Your task to perform on an android device: Go to notification settings Image 0: 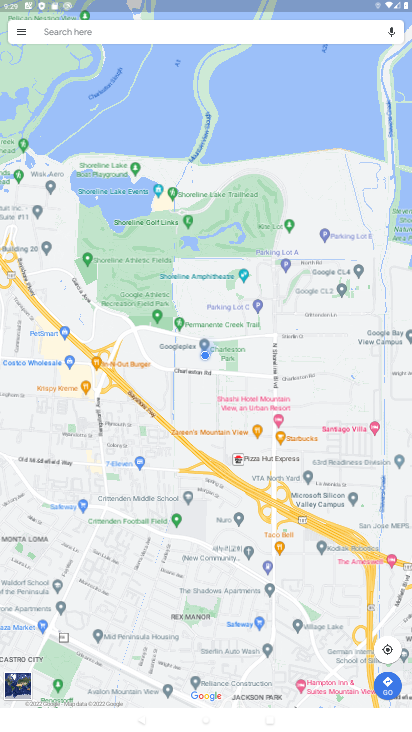
Step 0: drag from (179, 664) to (242, 609)
Your task to perform on an android device: Go to notification settings Image 1: 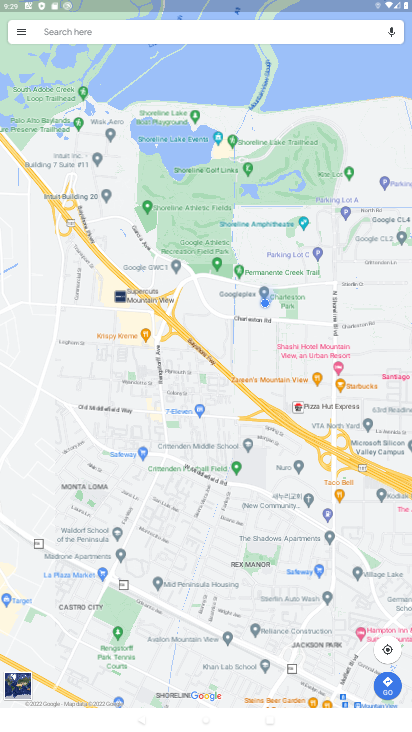
Step 1: press home button
Your task to perform on an android device: Go to notification settings Image 2: 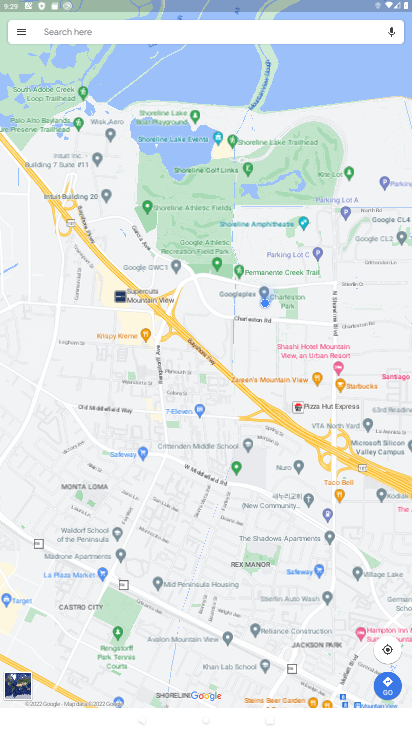
Step 2: drag from (242, 609) to (377, 525)
Your task to perform on an android device: Go to notification settings Image 3: 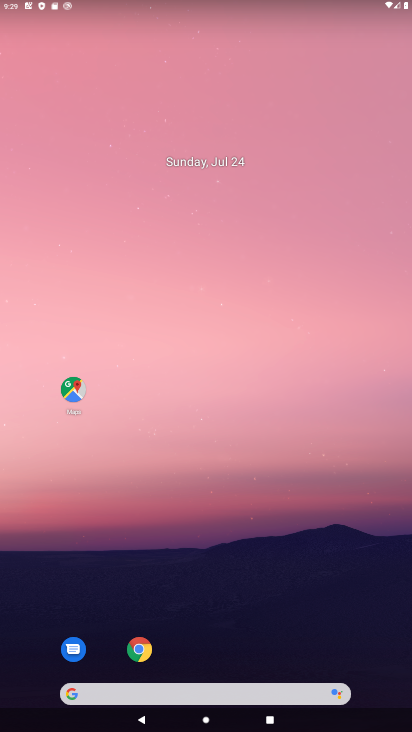
Step 3: drag from (192, 657) to (236, 188)
Your task to perform on an android device: Go to notification settings Image 4: 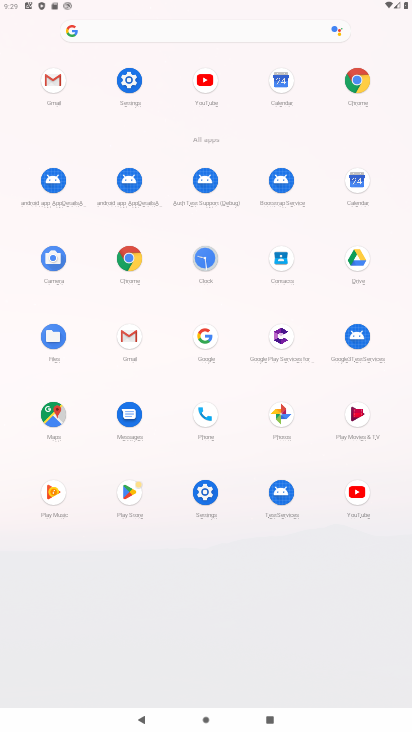
Step 4: click (209, 493)
Your task to perform on an android device: Go to notification settings Image 5: 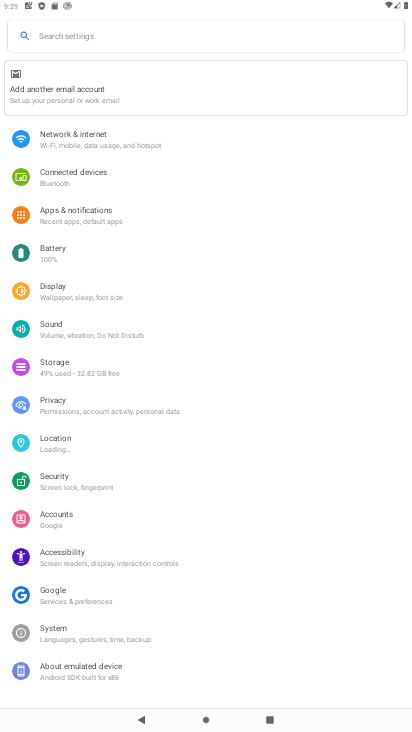
Step 5: click (132, 139)
Your task to perform on an android device: Go to notification settings Image 6: 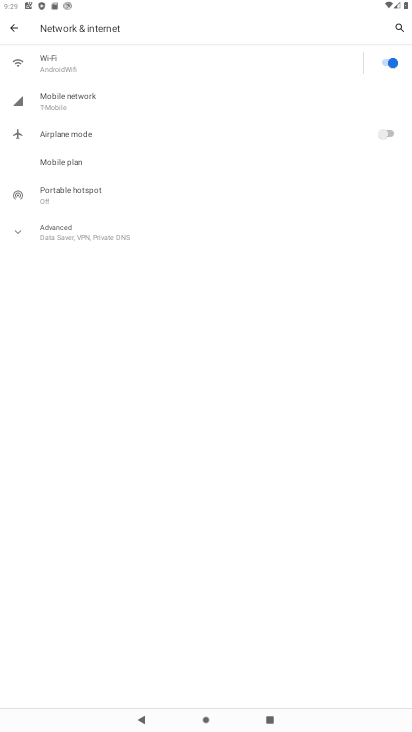
Step 6: task complete